Your task to perform on an android device: Open Reddit.com Image 0: 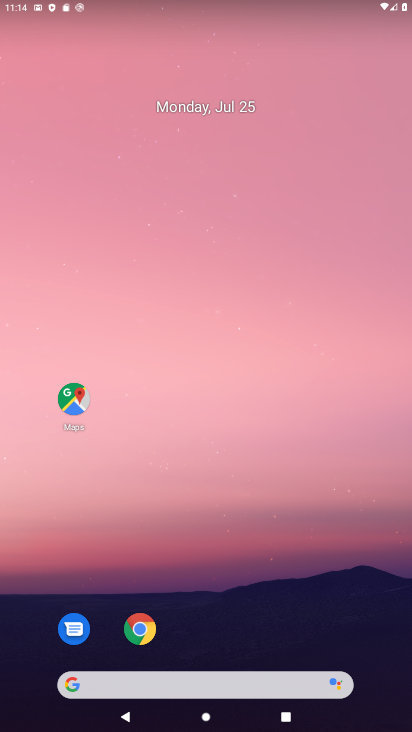
Step 0: drag from (213, 622) to (266, 12)
Your task to perform on an android device: Open Reddit.com Image 1: 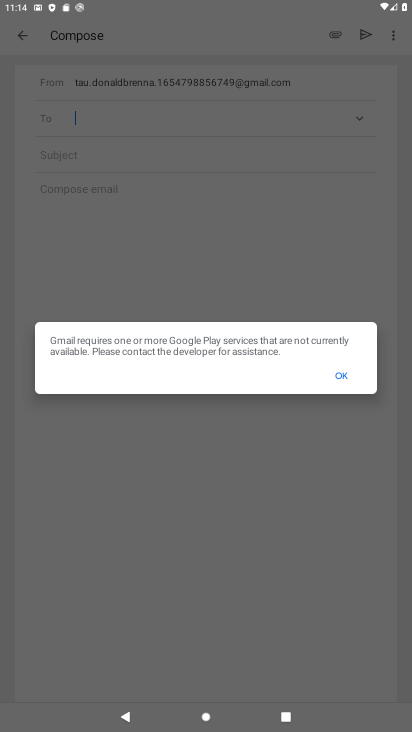
Step 1: press home button
Your task to perform on an android device: Open Reddit.com Image 2: 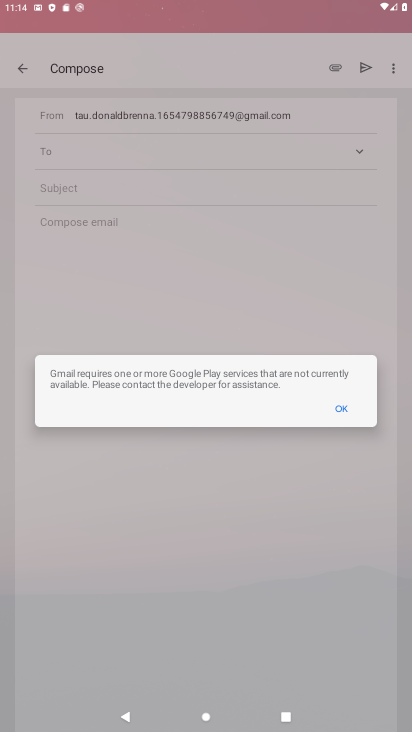
Step 2: drag from (142, 619) to (249, 137)
Your task to perform on an android device: Open Reddit.com Image 3: 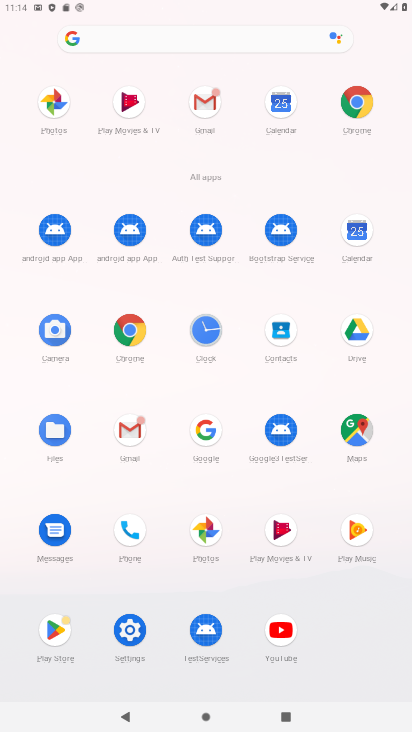
Step 3: click (136, 323)
Your task to perform on an android device: Open Reddit.com Image 4: 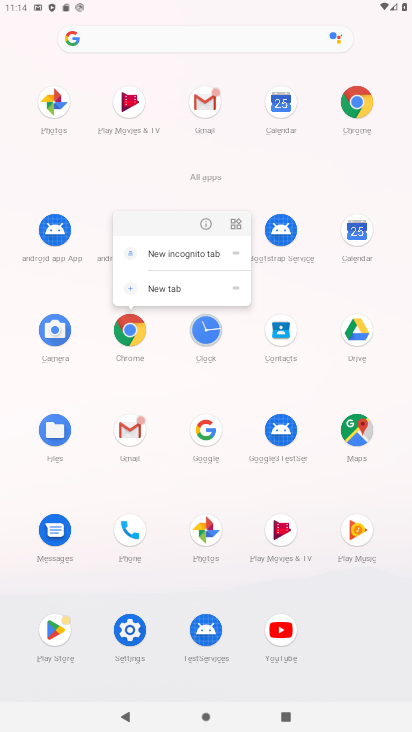
Step 4: click (206, 221)
Your task to perform on an android device: Open Reddit.com Image 5: 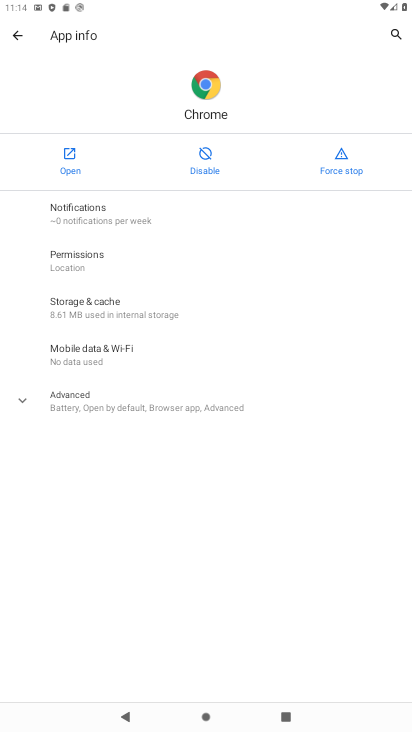
Step 5: click (58, 139)
Your task to perform on an android device: Open Reddit.com Image 6: 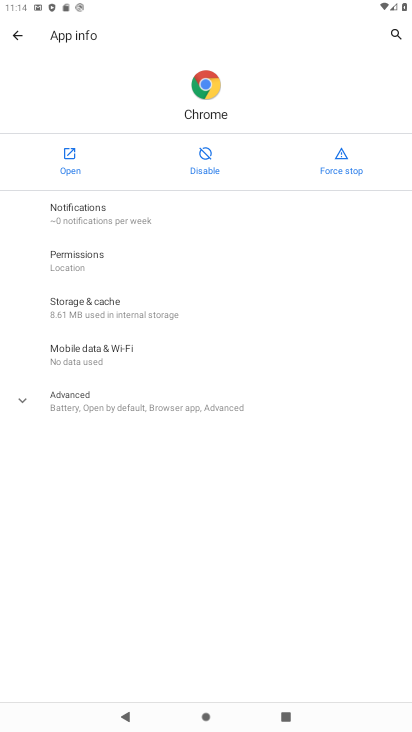
Step 6: click (65, 145)
Your task to perform on an android device: Open Reddit.com Image 7: 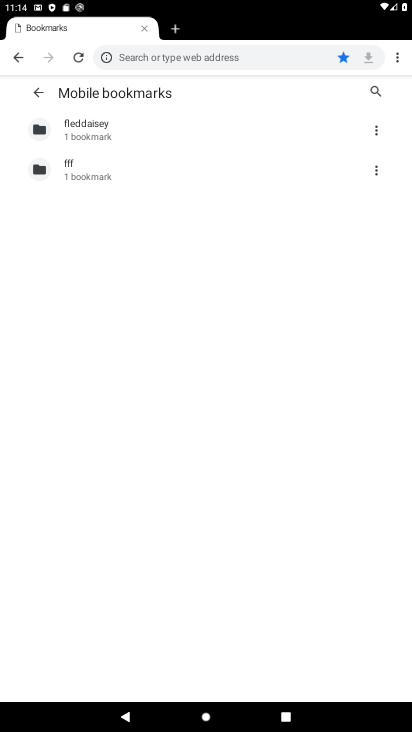
Step 7: click (182, 52)
Your task to perform on an android device: Open Reddit.com Image 8: 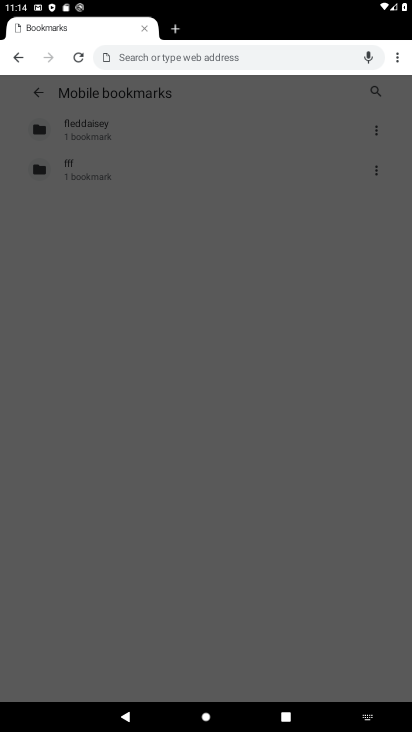
Step 8: type "Reddit.com"
Your task to perform on an android device: Open Reddit.com Image 9: 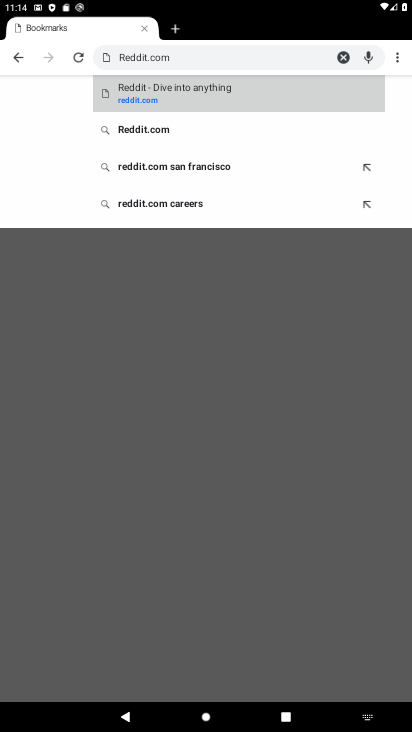
Step 9: click (171, 101)
Your task to perform on an android device: Open Reddit.com Image 10: 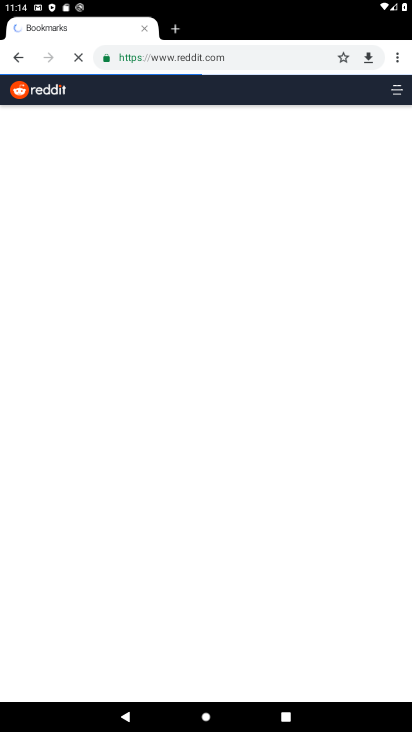
Step 10: task complete